Your task to perform on an android device: open chrome and create a bookmark for the current page Image 0: 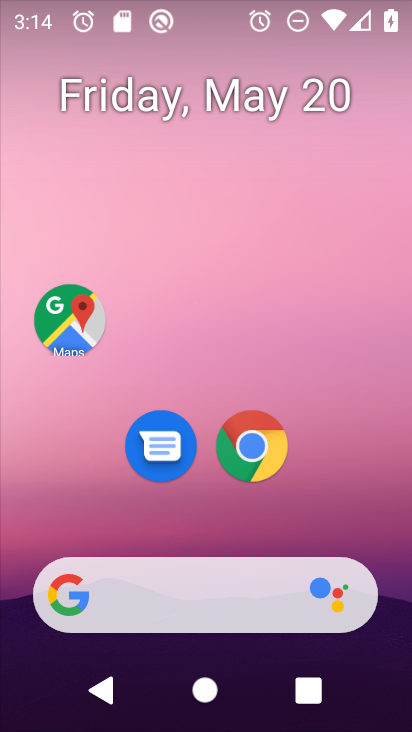
Step 0: click (254, 452)
Your task to perform on an android device: open chrome and create a bookmark for the current page Image 1: 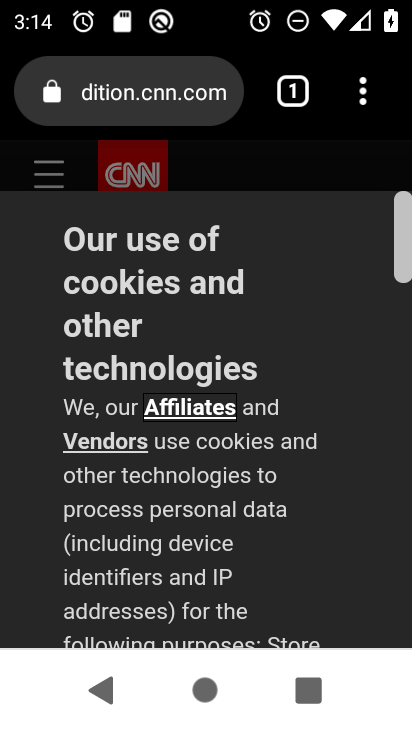
Step 1: click (364, 98)
Your task to perform on an android device: open chrome and create a bookmark for the current page Image 2: 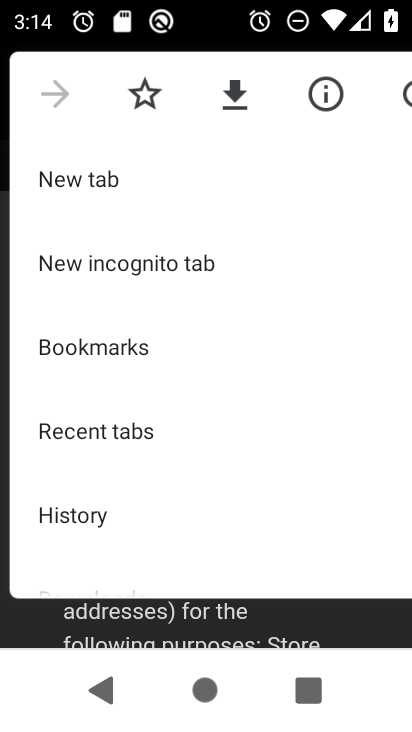
Step 2: click (144, 98)
Your task to perform on an android device: open chrome and create a bookmark for the current page Image 3: 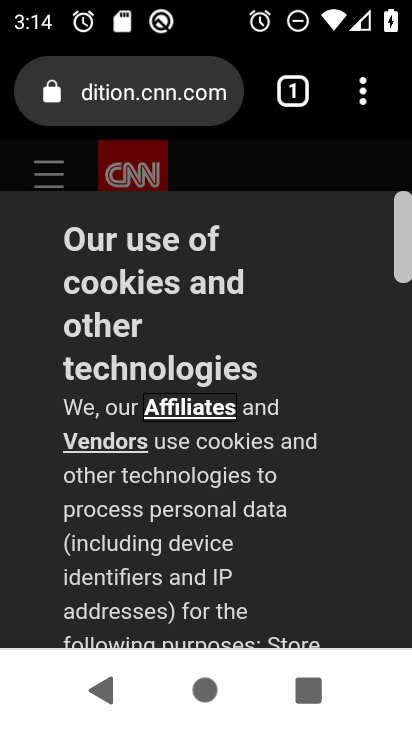
Step 3: task complete